Your task to perform on an android device: Open wifi settings Image 0: 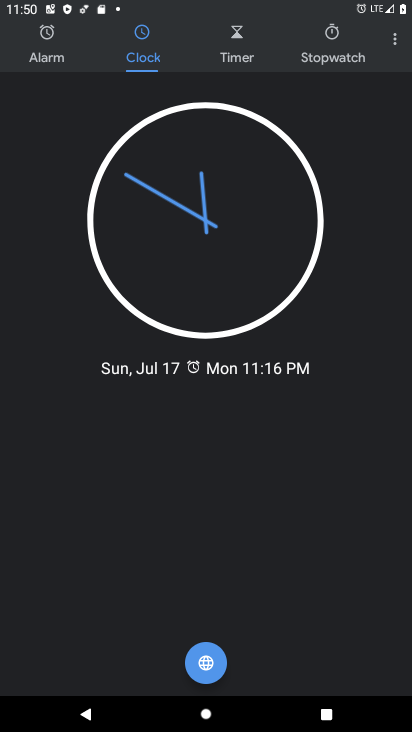
Step 0: press home button
Your task to perform on an android device: Open wifi settings Image 1: 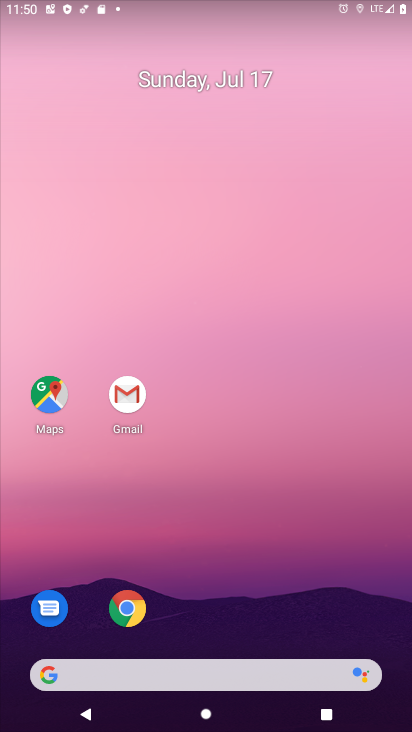
Step 1: drag from (211, 645) to (376, 7)
Your task to perform on an android device: Open wifi settings Image 2: 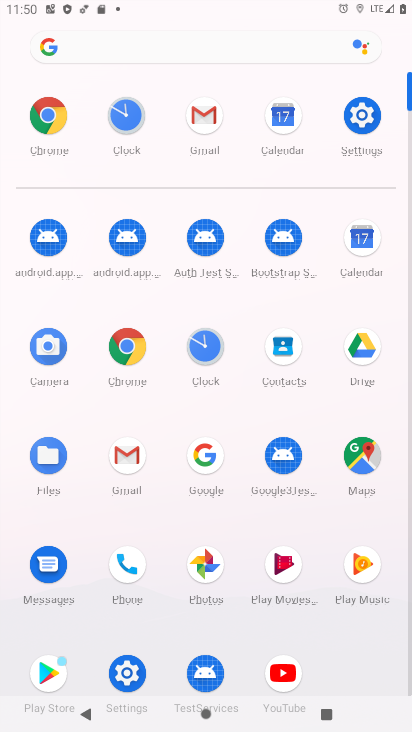
Step 2: click (113, 674)
Your task to perform on an android device: Open wifi settings Image 3: 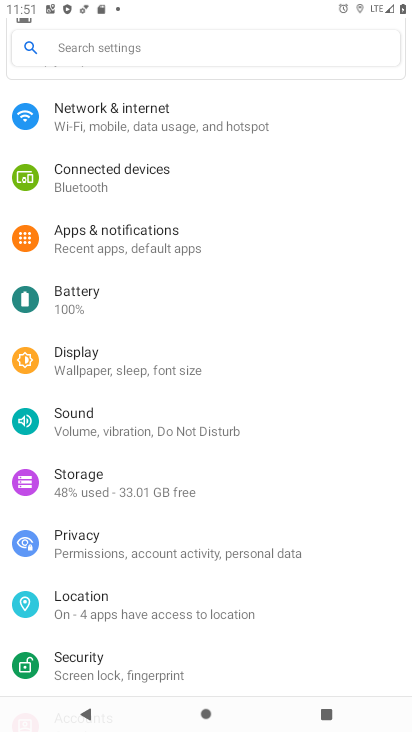
Step 3: click (96, 128)
Your task to perform on an android device: Open wifi settings Image 4: 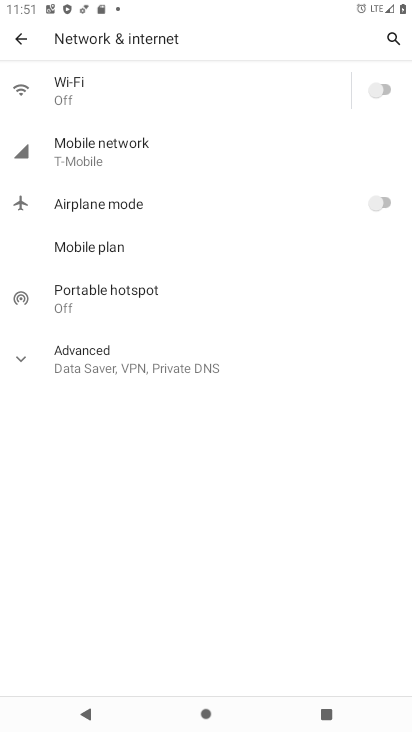
Step 4: click (91, 102)
Your task to perform on an android device: Open wifi settings Image 5: 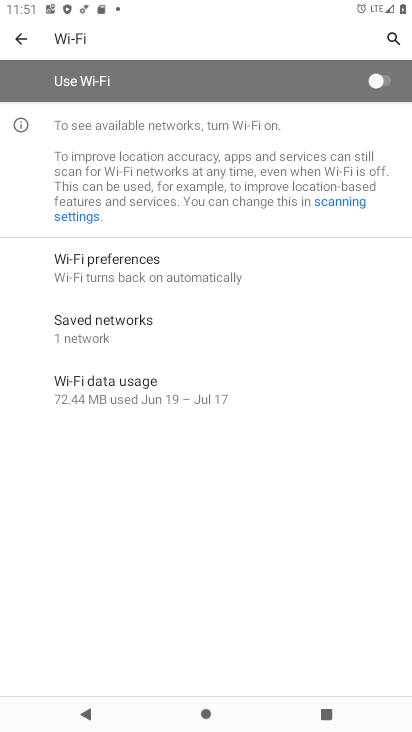
Step 5: task complete